Your task to perform on an android device: open app "PUBG MOBILE" (install if not already installed) Image 0: 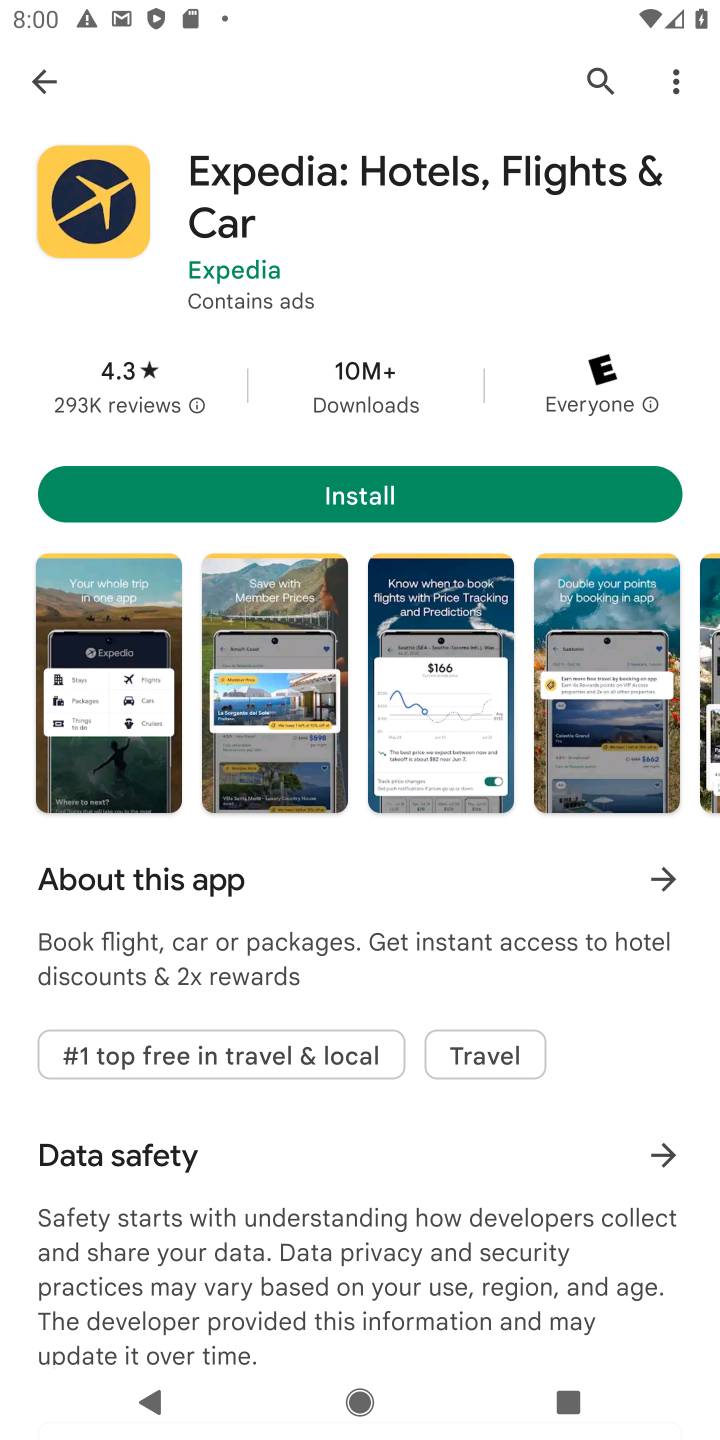
Step 0: press back button
Your task to perform on an android device: open app "PUBG MOBILE" (install if not already installed) Image 1: 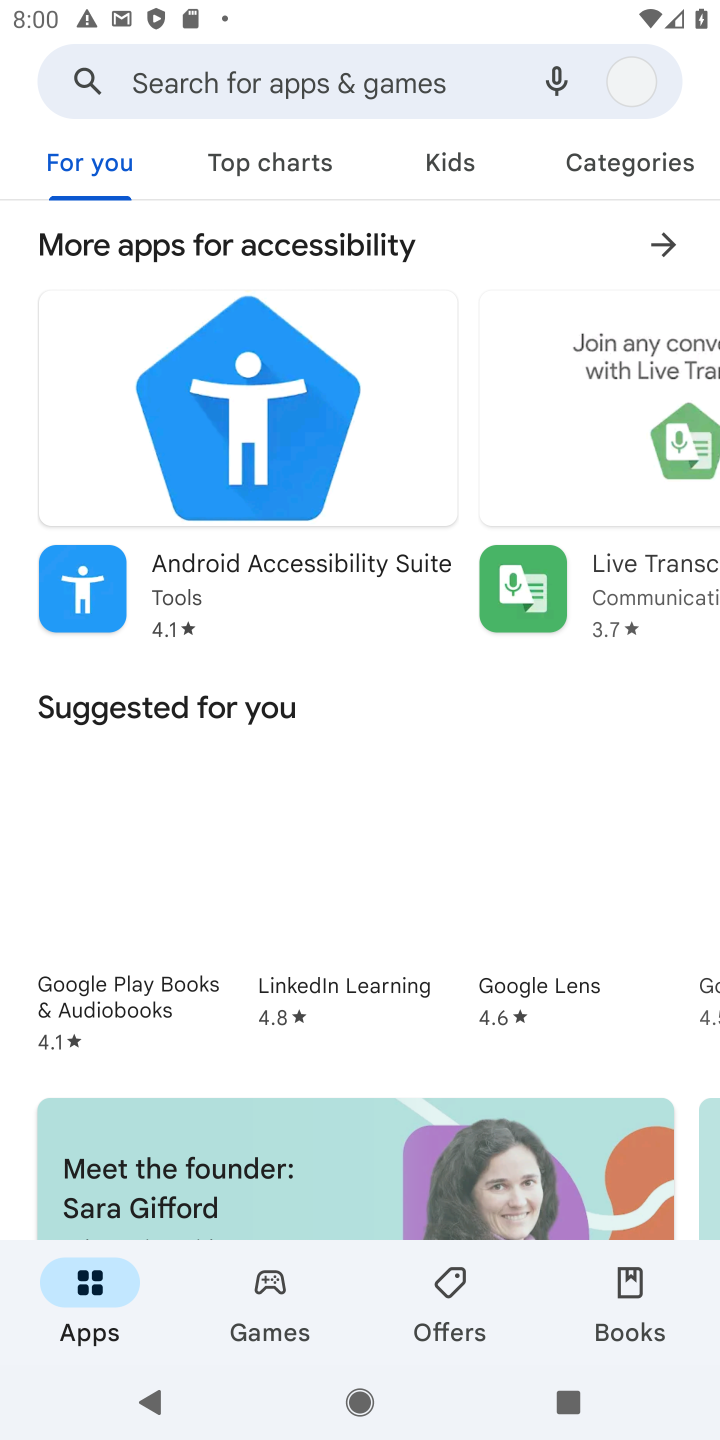
Step 1: press home button
Your task to perform on an android device: open app "PUBG MOBILE" (install if not already installed) Image 2: 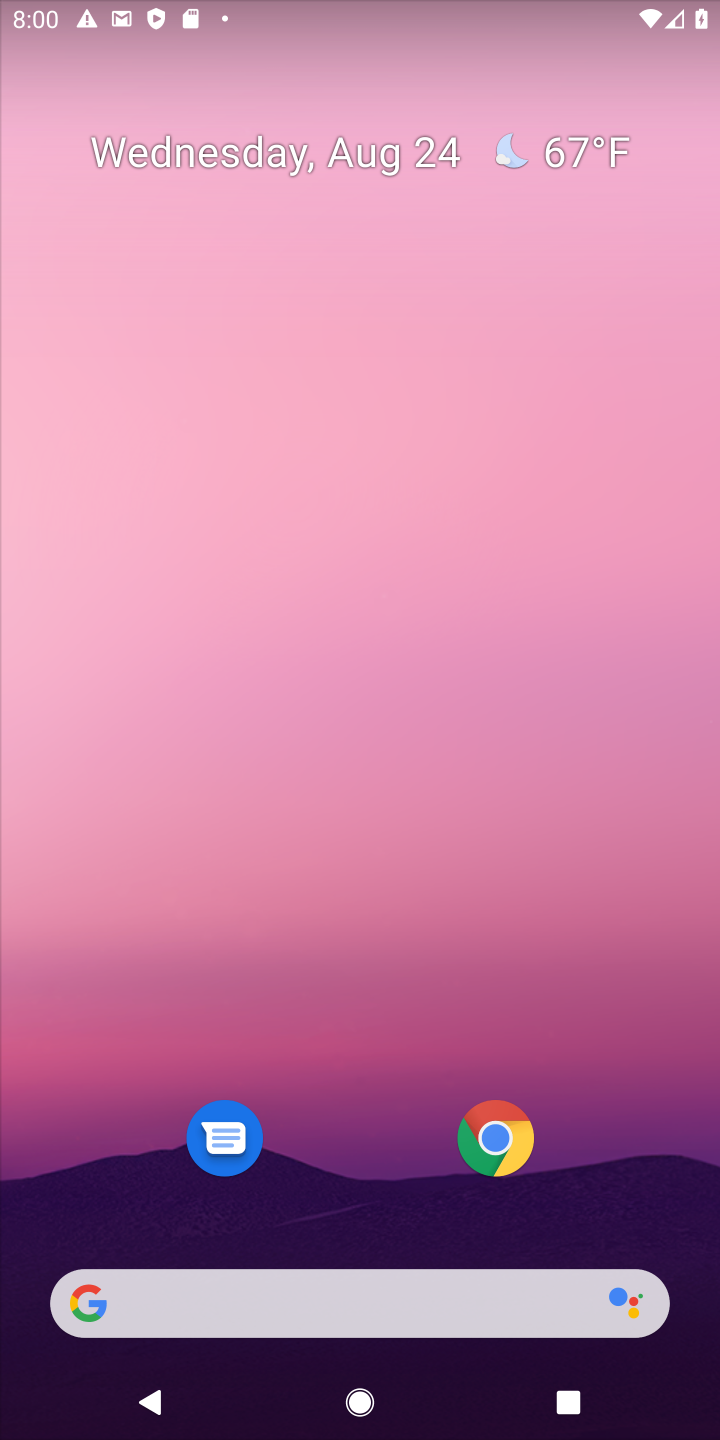
Step 2: drag from (308, 1234) to (245, 341)
Your task to perform on an android device: open app "PUBG MOBILE" (install if not already installed) Image 3: 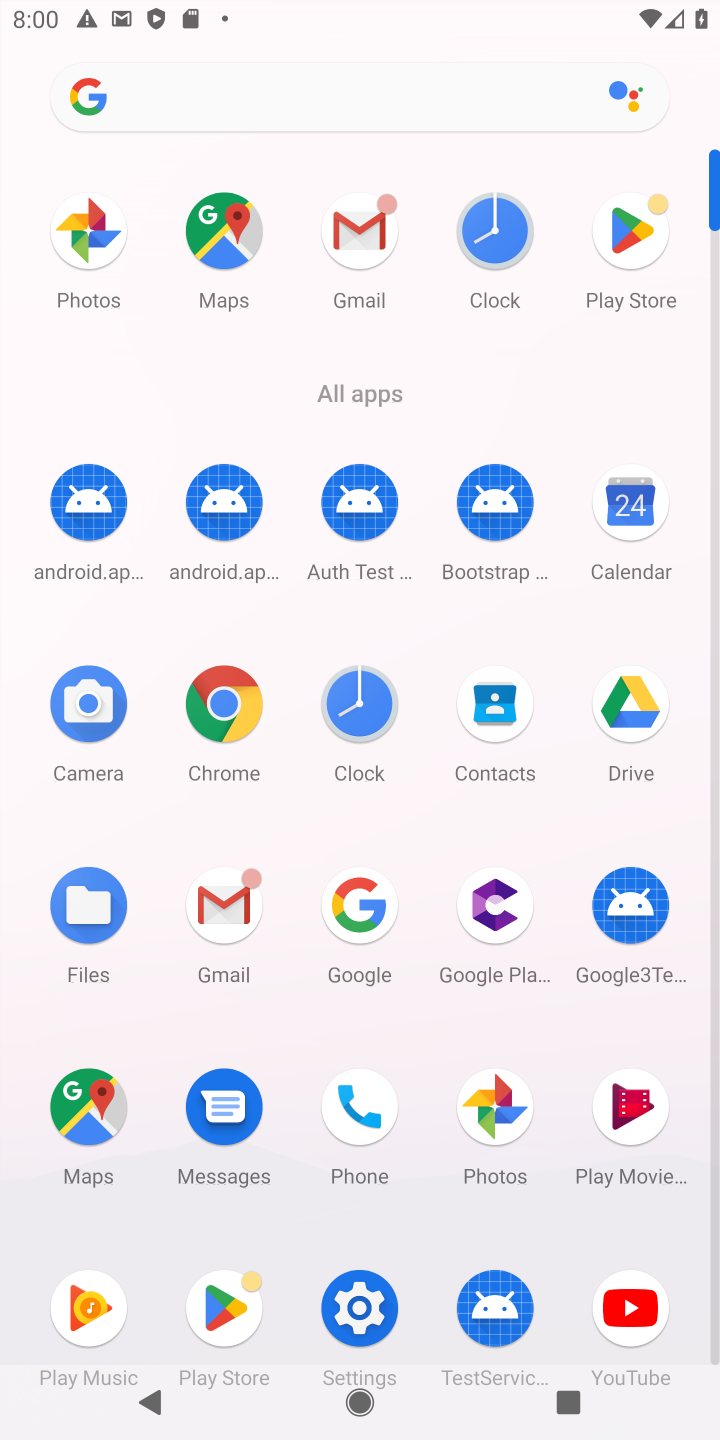
Step 3: click (203, 1317)
Your task to perform on an android device: open app "PUBG MOBILE" (install if not already installed) Image 4: 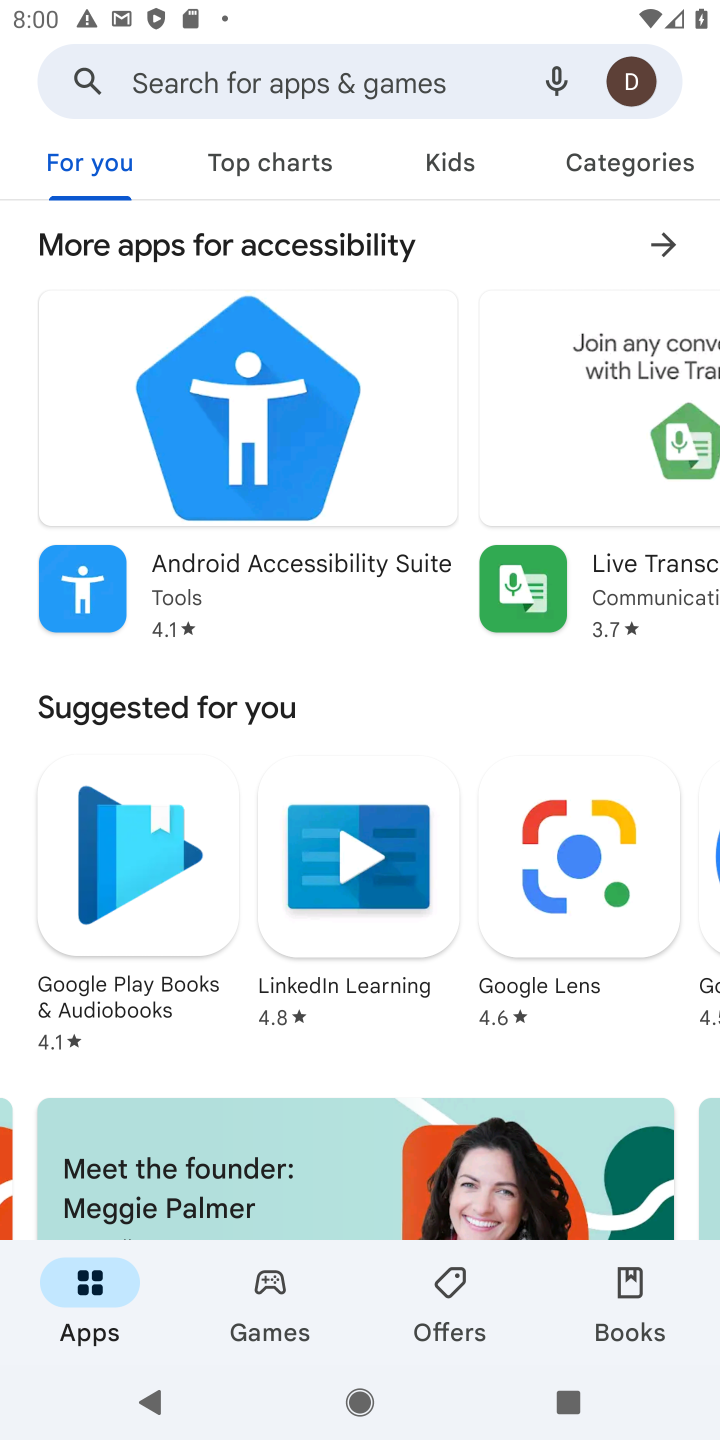
Step 4: click (182, 94)
Your task to perform on an android device: open app "PUBG MOBILE" (install if not already installed) Image 5: 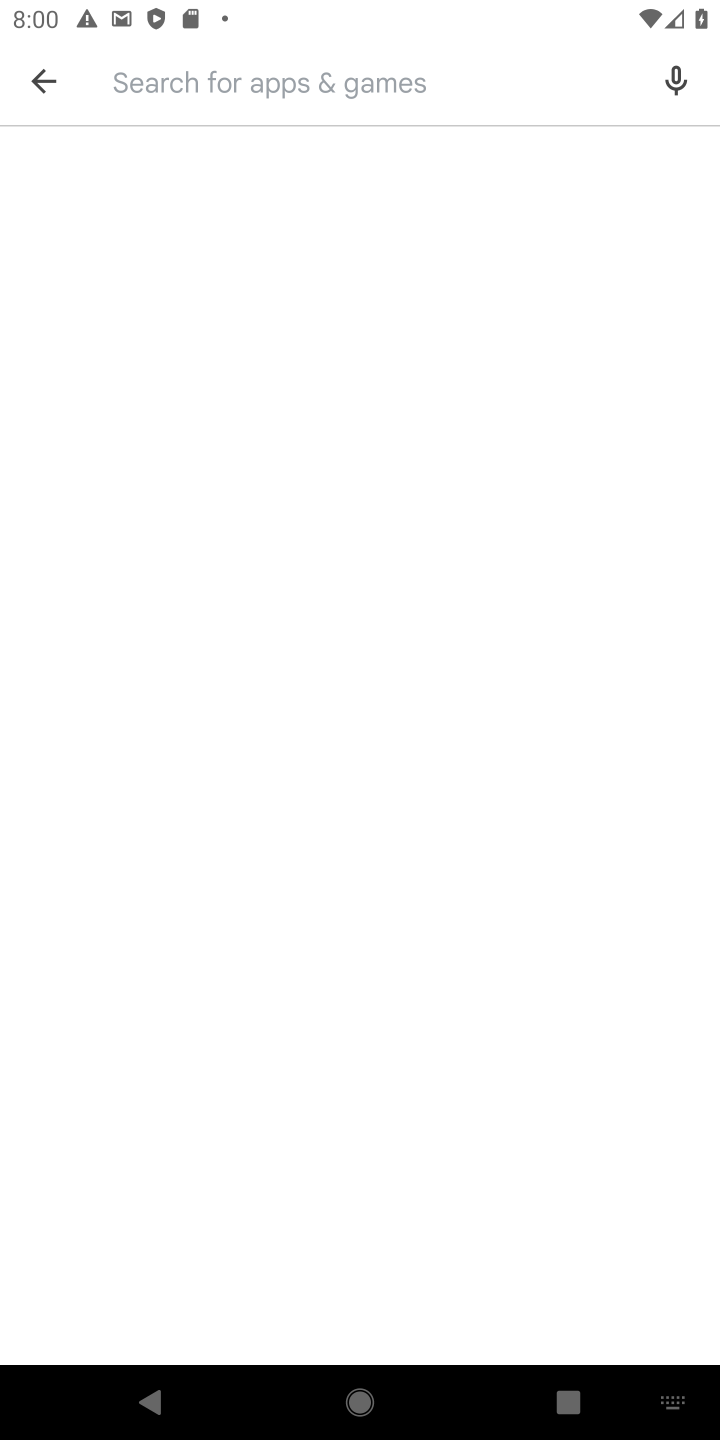
Step 5: type "PUBG MOBILE"
Your task to perform on an android device: open app "PUBG MOBILE" (install if not already installed) Image 6: 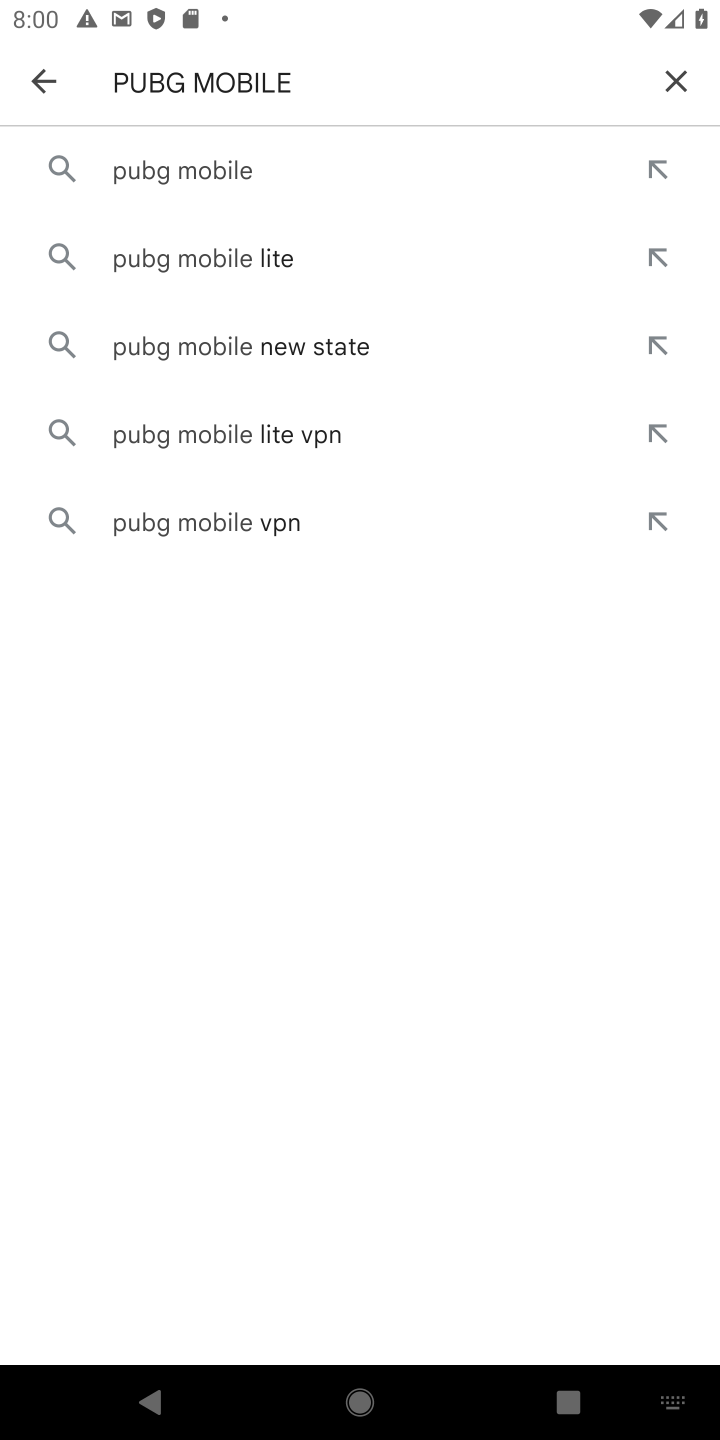
Step 6: click (206, 171)
Your task to perform on an android device: open app "PUBG MOBILE" (install if not already installed) Image 7: 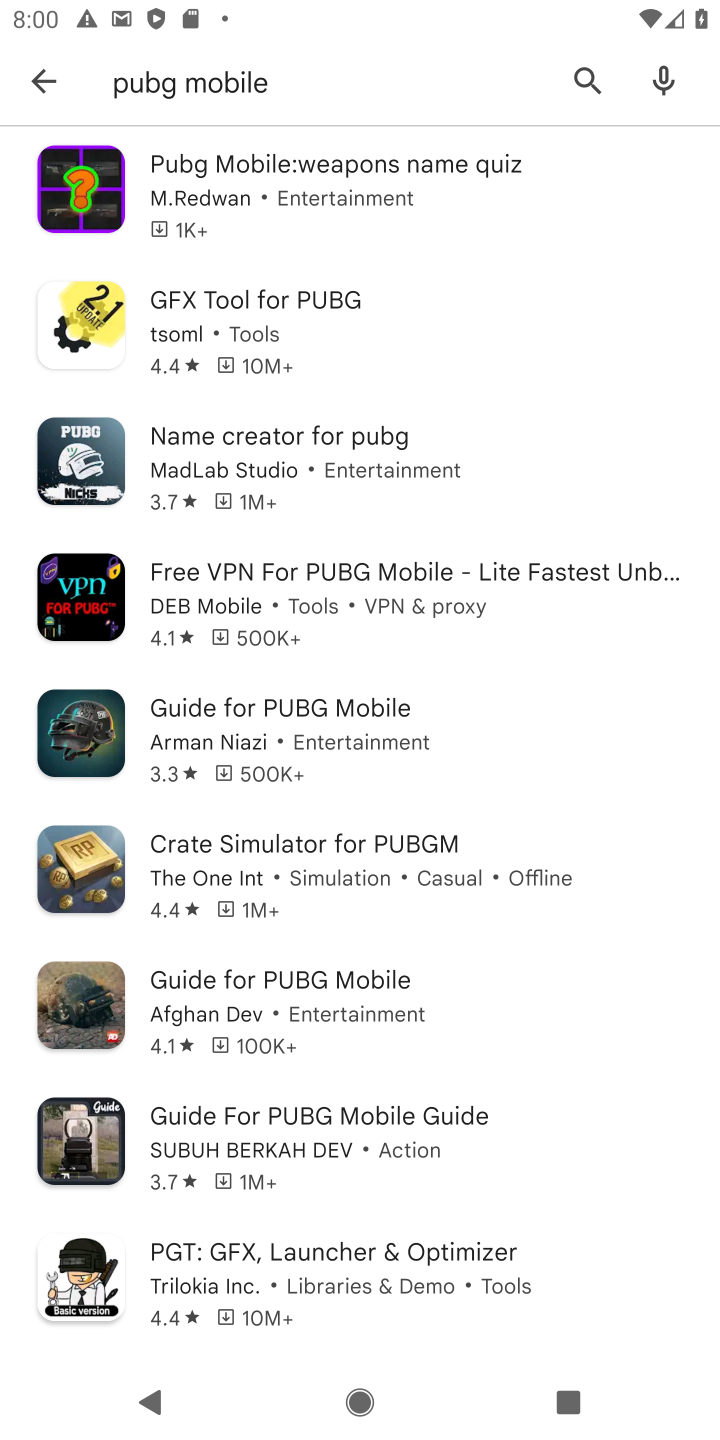
Step 7: task complete